Your task to perform on an android device: move an email to a new category in the gmail app Image 0: 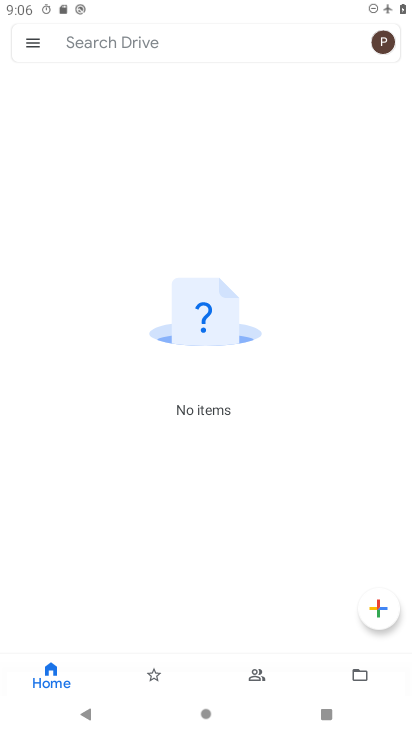
Step 0: press back button
Your task to perform on an android device: move an email to a new category in the gmail app Image 1: 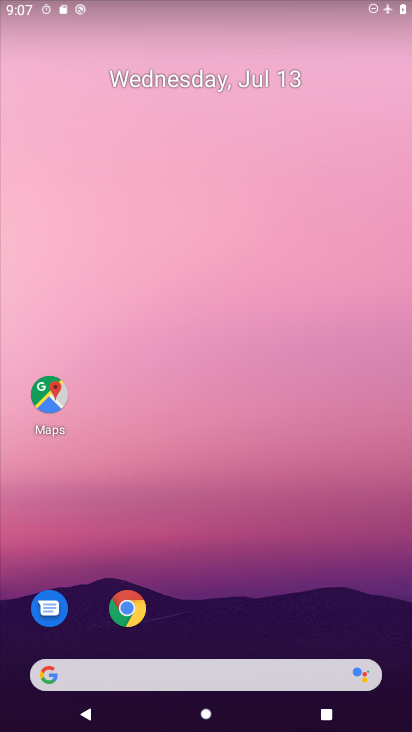
Step 1: click (153, 280)
Your task to perform on an android device: move an email to a new category in the gmail app Image 2: 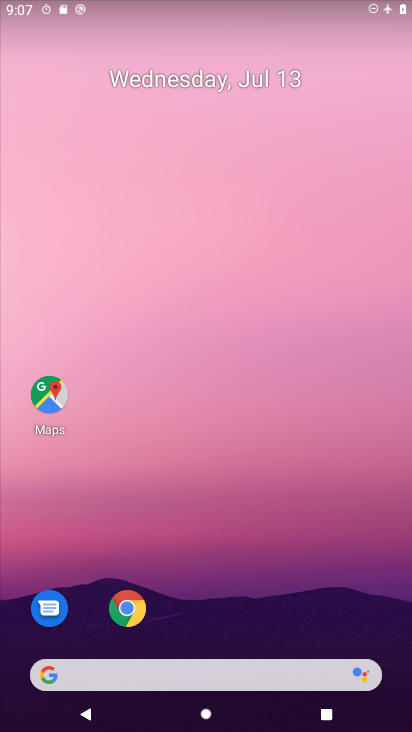
Step 2: drag from (249, 621) to (130, 235)
Your task to perform on an android device: move an email to a new category in the gmail app Image 3: 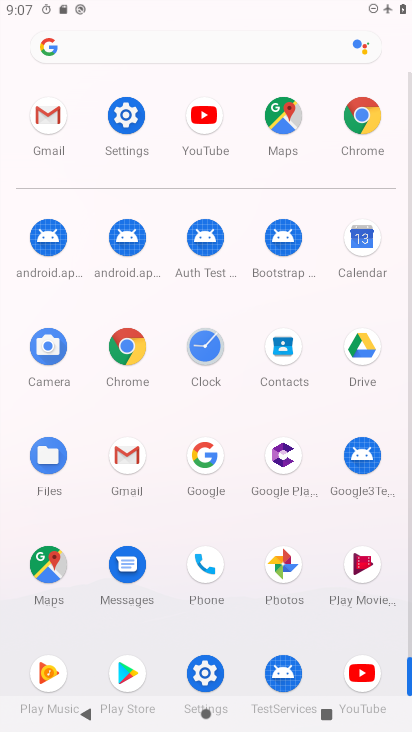
Step 3: click (123, 467)
Your task to perform on an android device: move an email to a new category in the gmail app Image 4: 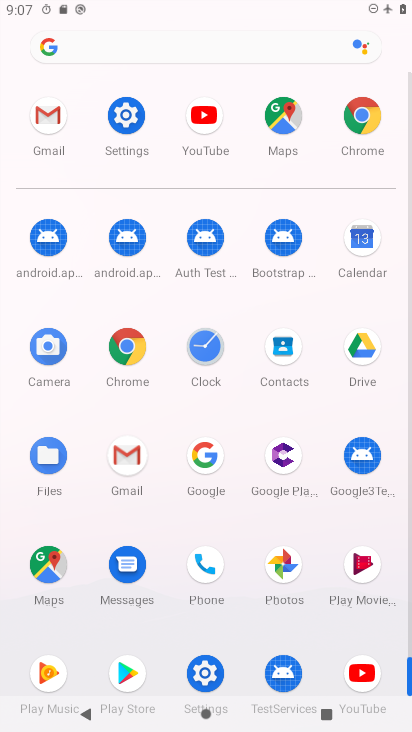
Step 4: click (124, 467)
Your task to perform on an android device: move an email to a new category in the gmail app Image 5: 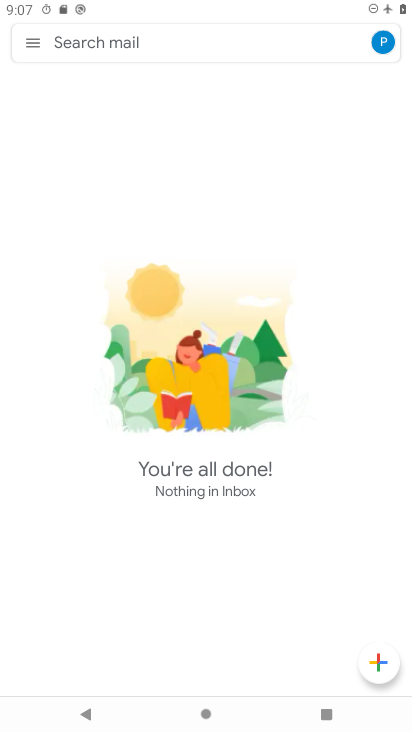
Step 5: click (40, 36)
Your task to perform on an android device: move an email to a new category in the gmail app Image 6: 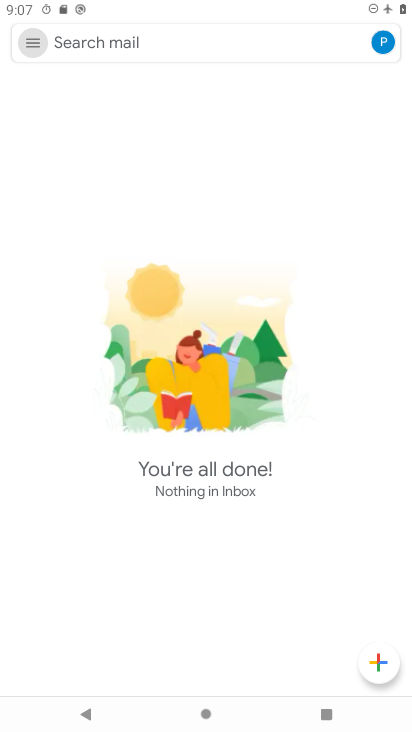
Step 6: drag from (31, 39) to (411, 621)
Your task to perform on an android device: move an email to a new category in the gmail app Image 7: 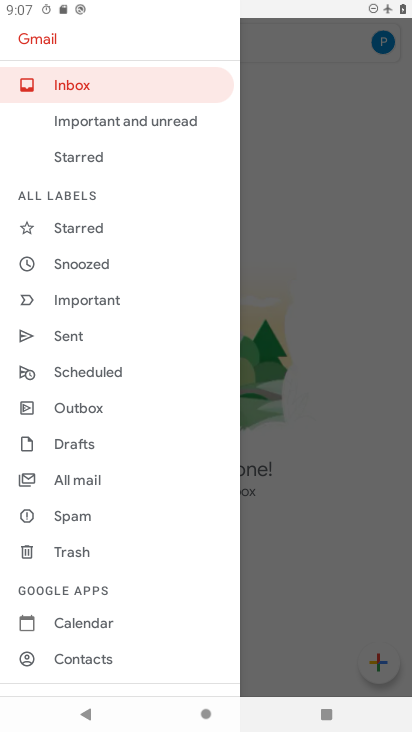
Step 7: drag from (175, 540) to (114, 227)
Your task to perform on an android device: move an email to a new category in the gmail app Image 8: 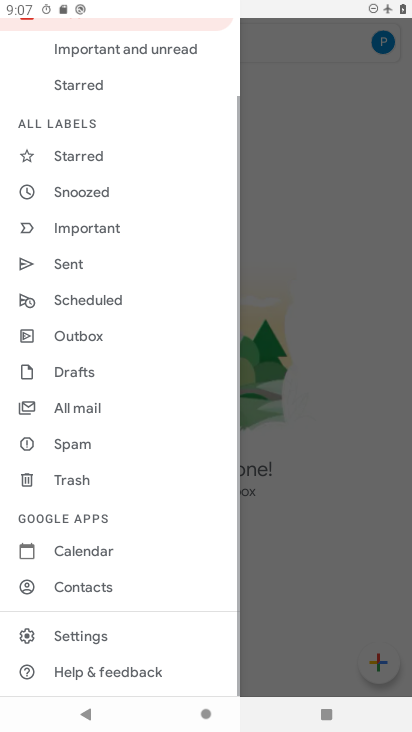
Step 8: drag from (75, 504) to (79, 206)
Your task to perform on an android device: move an email to a new category in the gmail app Image 9: 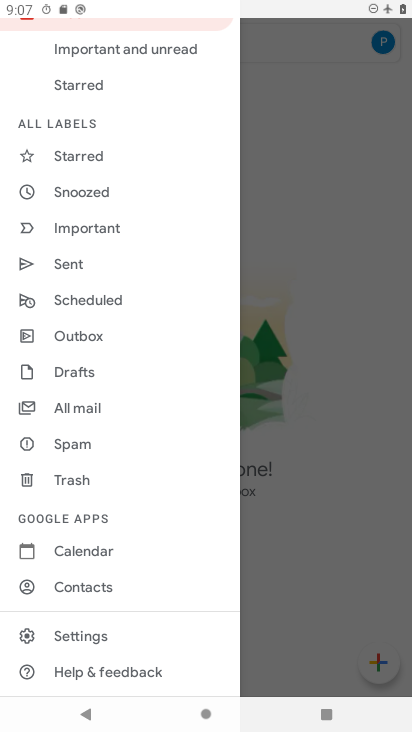
Step 9: click (85, 634)
Your task to perform on an android device: move an email to a new category in the gmail app Image 10: 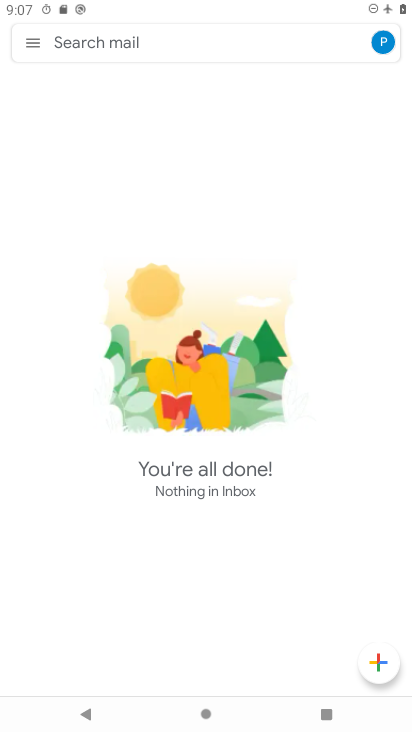
Step 10: click (92, 633)
Your task to perform on an android device: move an email to a new category in the gmail app Image 11: 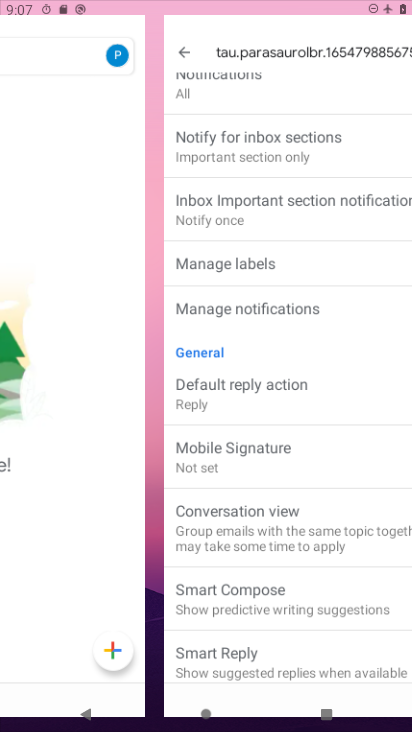
Step 11: click (92, 633)
Your task to perform on an android device: move an email to a new category in the gmail app Image 12: 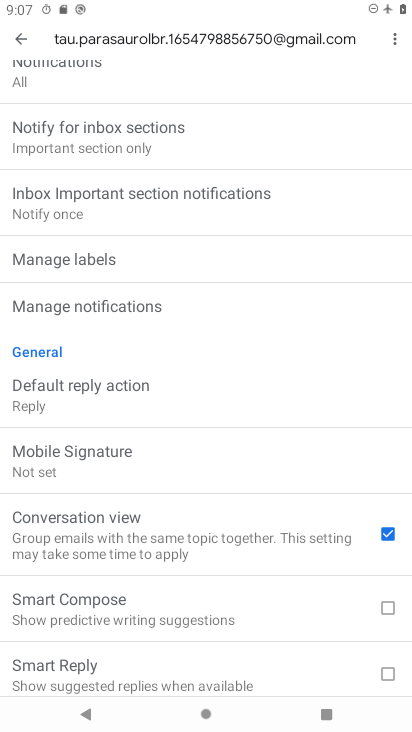
Step 12: click (24, 38)
Your task to perform on an android device: move an email to a new category in the gmail app Image 13: 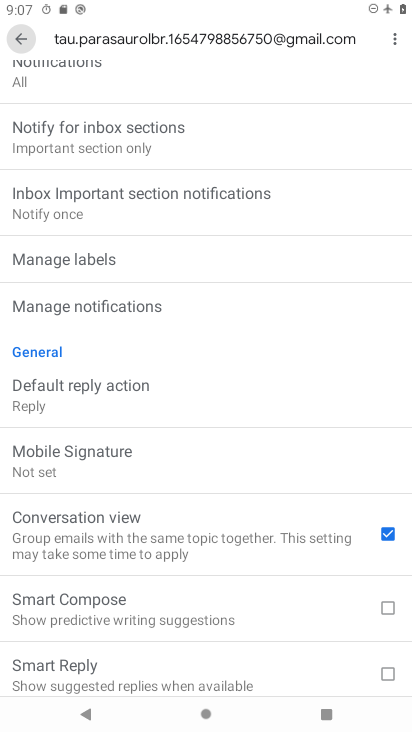
Step 13: click (24, 38)
Your task to perform on an android device: move an email to a new category in the gmail app Image 14: 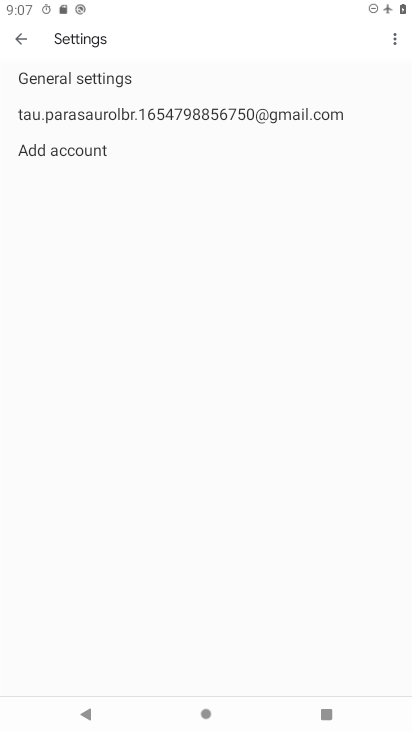
Step 14: click (24, 38)
Your task to perform on an android device: move an email to a new category in the gmail app Image 15: 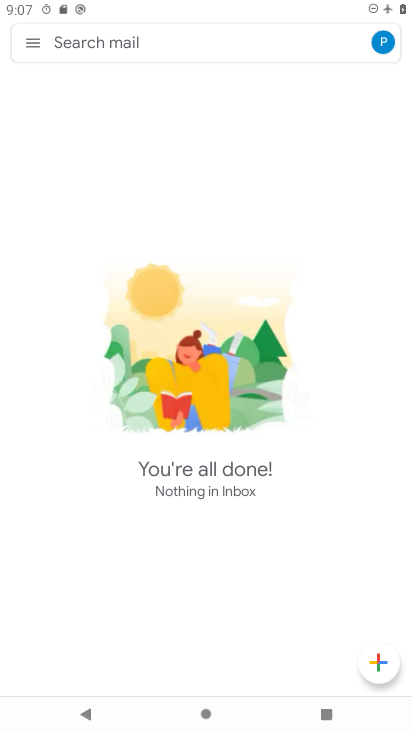
Step 15: click (30, 38)
Your task to perform on an android device: move an email to a new category in the gmail app Image 16: 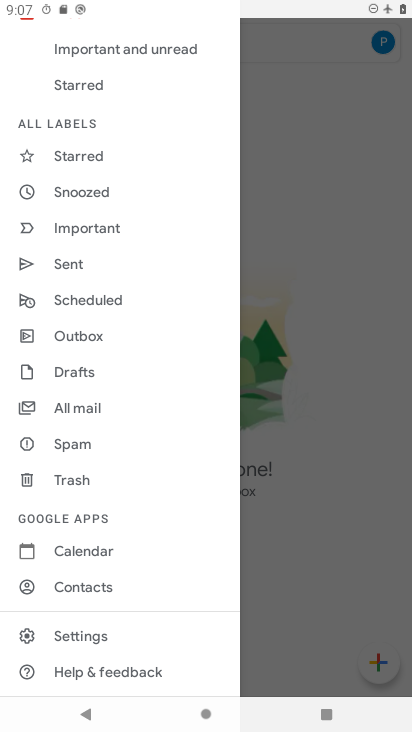
Step 16: click (81, 407)
Your task to perform on an android device: move an email to a new category in the gmail app Image 17: 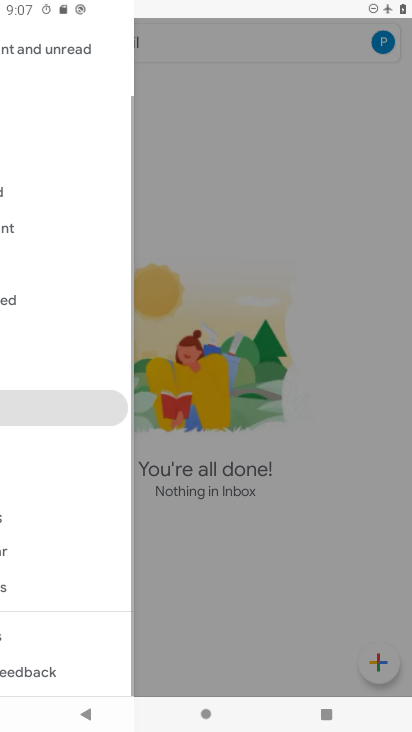
Step 17: click (78, 400)
Your task to perform on an android device: move an email to a new category in the gmail app Image 18: 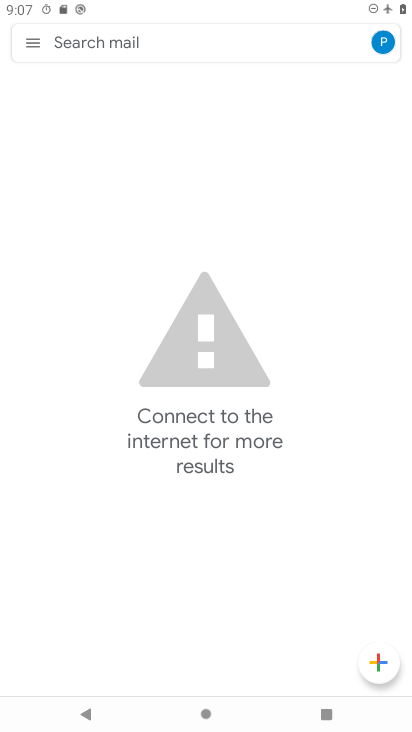
Step 18: task complete